Your task to perform on an android device: toggle improve location accuracy Image 0: 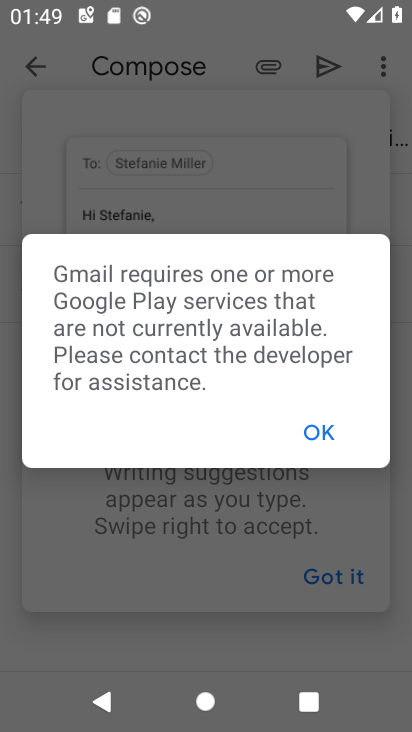
Step 0: press home button
Your task to perform on an android device: toggle improve location accuracy Image 1: 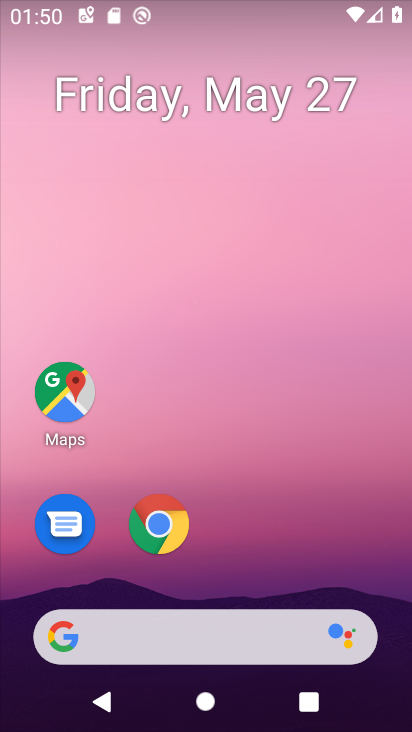
Step 1: drag from (264, 532) to (235, 41)
Your task to perform on an android device: toggle improve location accuracy Image 2: 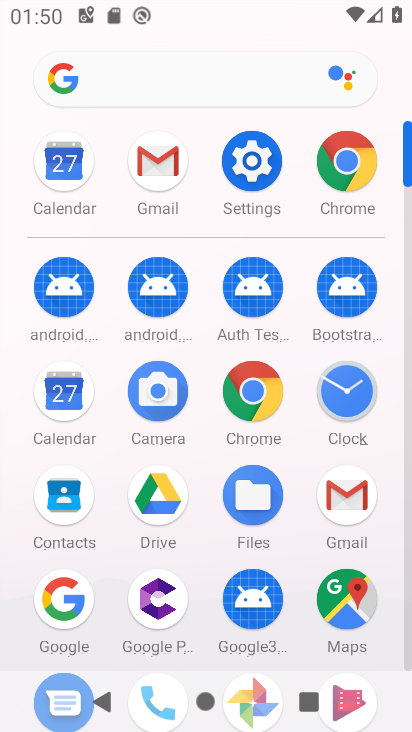
Step 2: click (250, 159)
Your task to perform on an android device: toggle improve location accuracy Image 3: 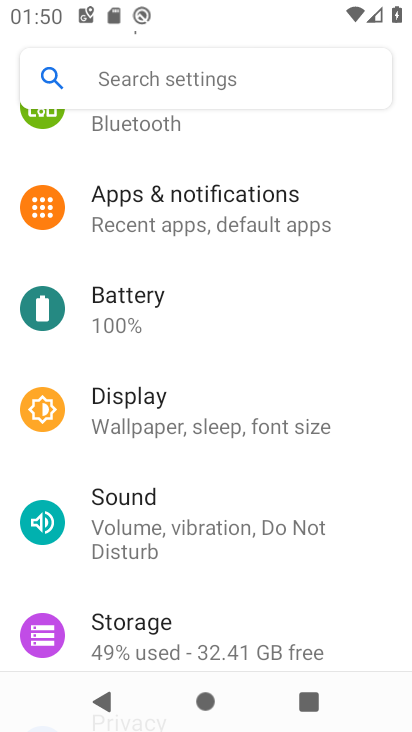
Step 3: drag from (236, 553) to (229, 129)
Your task to perform on an android device: toggle improve location accuracy Image 4: 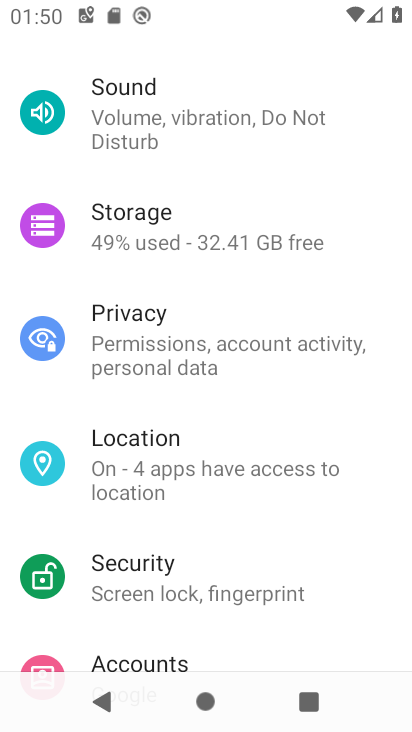
Step 4: click (187, 451)
Your task to perform on an android device: toggle improve location accuracy Image 5: 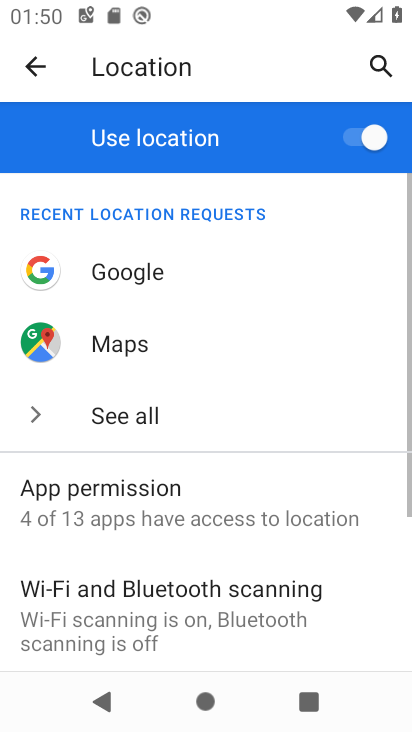
Step 5: drag from (226, 572) to (259, 55)
Your task to perform on an android device: toggle improve location accuracy Image 6: 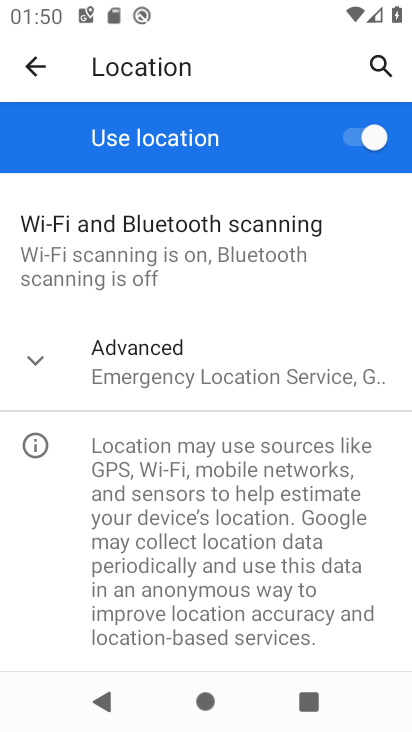
Step 6: click (32, 362)
Your task to perform on an android device: toggle improve location accuracy Image 7: 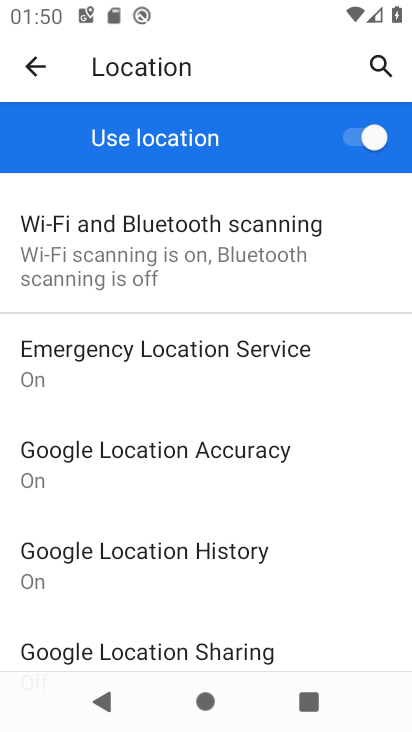
Step 7: click (136, 457)
Your task to perform on an android device: toggle improve location accuracy Image 8: 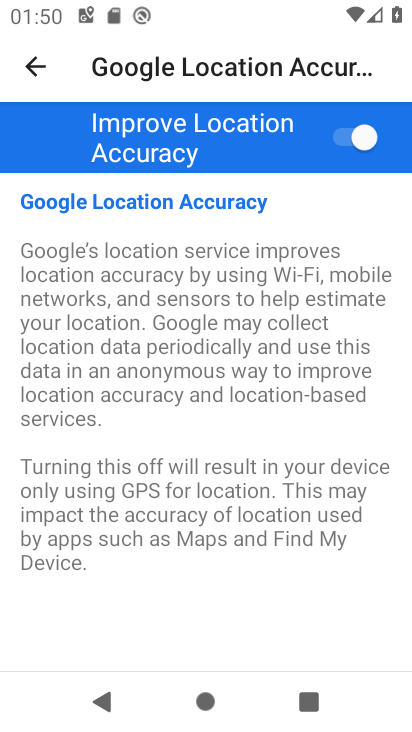
Step 8: click (347, 141)
Your task to perform on an android device: toggle improve location accuracy Image 9: 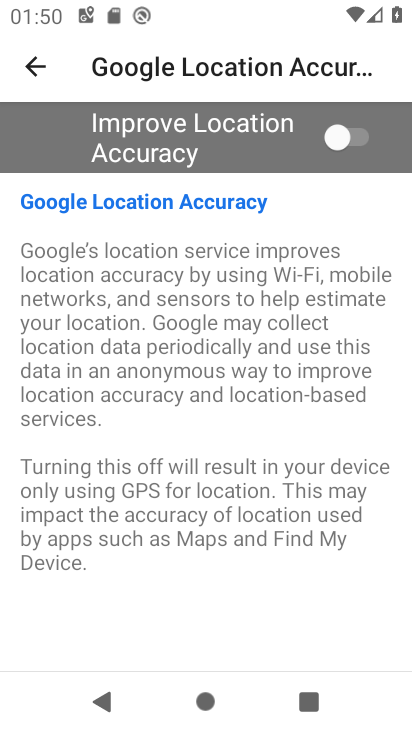
Step 9: task complete